Your task to perform on an android device: Go to CNN.com Image 0: 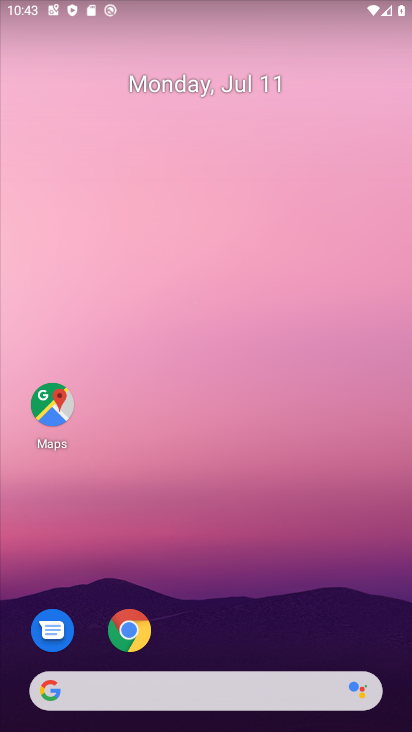
Step 0: click (147, 633)
Your task to perform on an android device: Go to CNN.com Image 1: 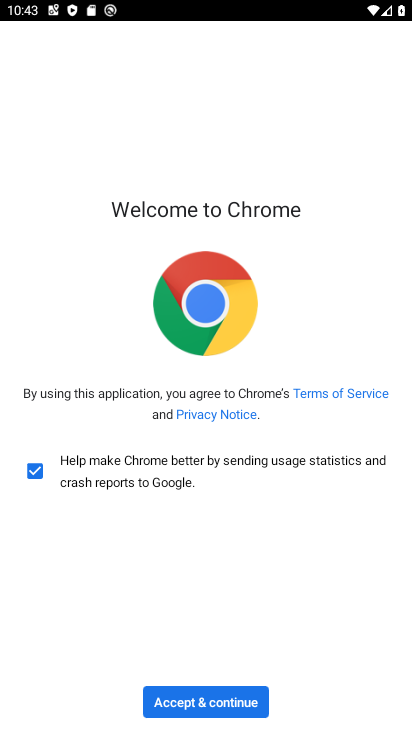
Step 1: click (218, 700)
Your task to perform on an android device: Go to CNN.com Image 2: 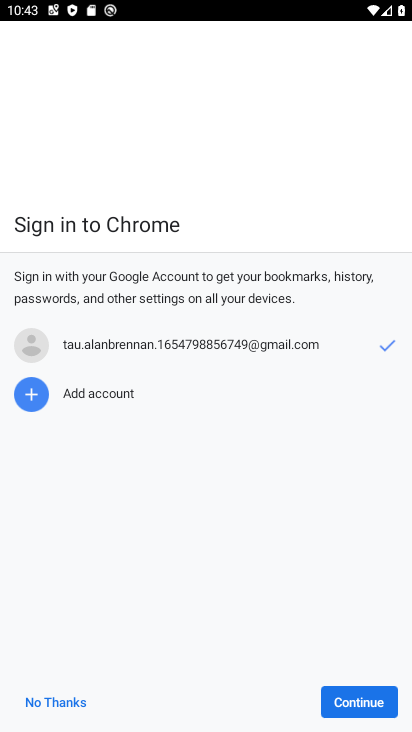
Step 2: click (364, 703)
Your task to perform on an android device: Go to CNN.com Image 3: 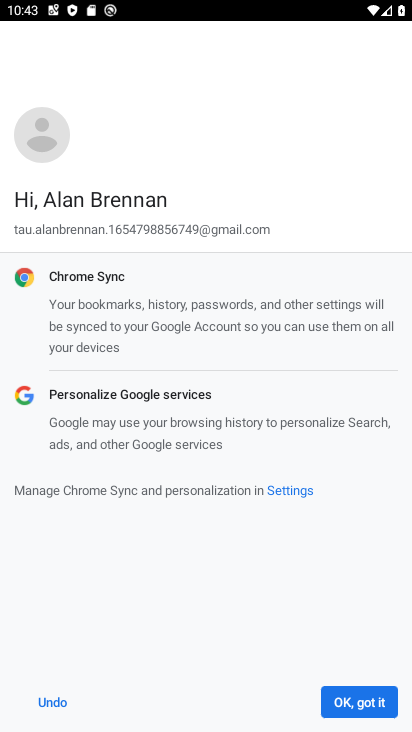
Step 3: click (364, 703)
Your task to perform on an android device: Go to CNN.com Image 4: 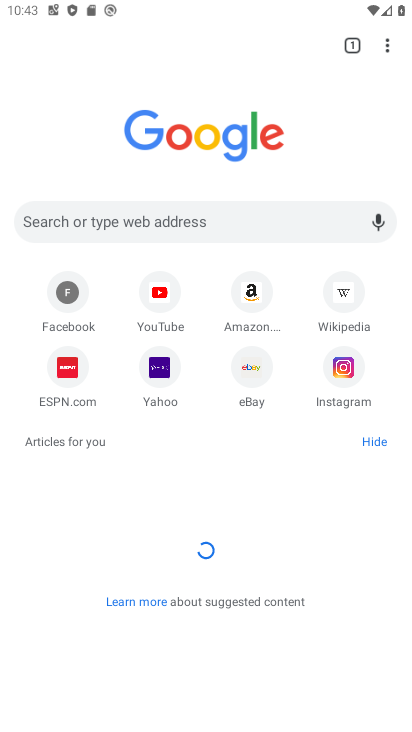
Step 4: click (144, 214)
Your task to perform on an android device: Go to CNN.com Image 5: 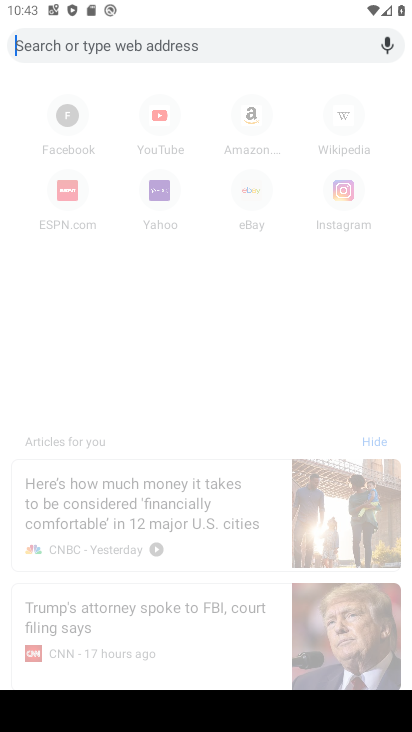
Step 5: type "cnn.com"
Your task to perform on an android device: Go to CNN.com Image 6: 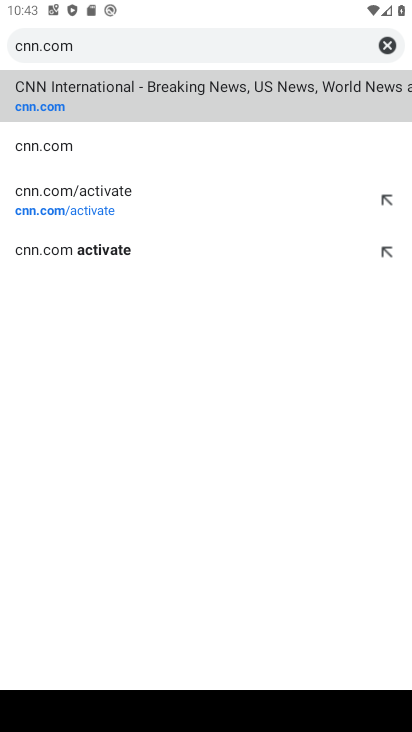
Step 6: click (254, 104)
Your task to perform on an android device: Go to CNN.com Image 7: 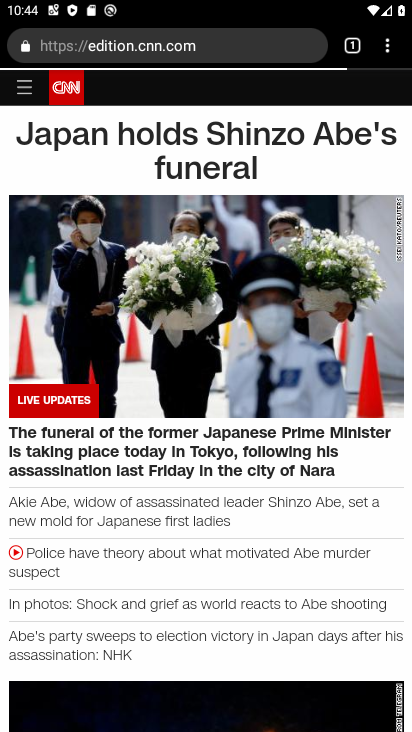
Step 7: task complete